Your task to perform on an android device: show emergency info Image 0: 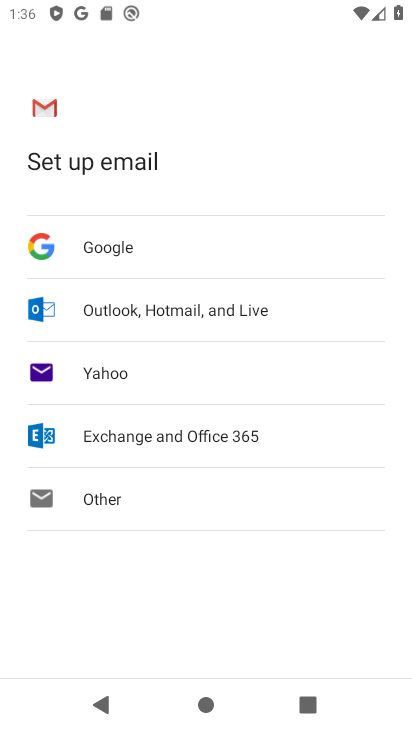
Step 0: press home button
Your task to perform on an android device: show emergency info Image 1: 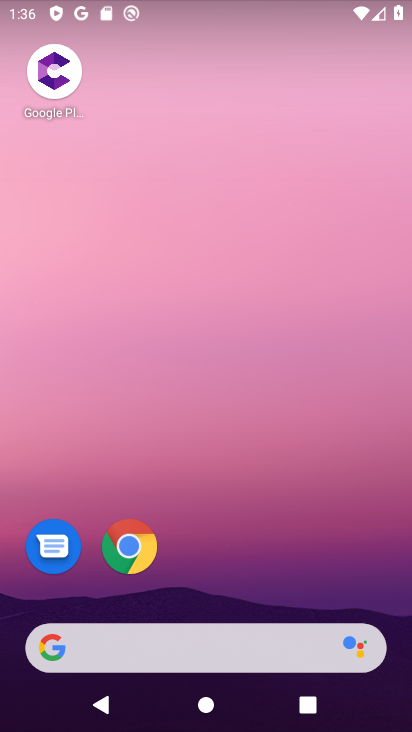
Step 1: drag from (221, 646) to (153, 2)
Your task to perform on an android device: show emergency info Image 2: 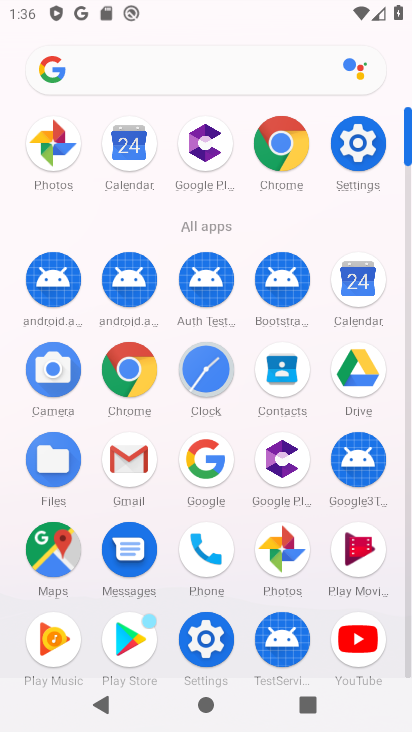
Step 2: click (356, 158)
Your task to perform on an android device: show emergency info Image 3: 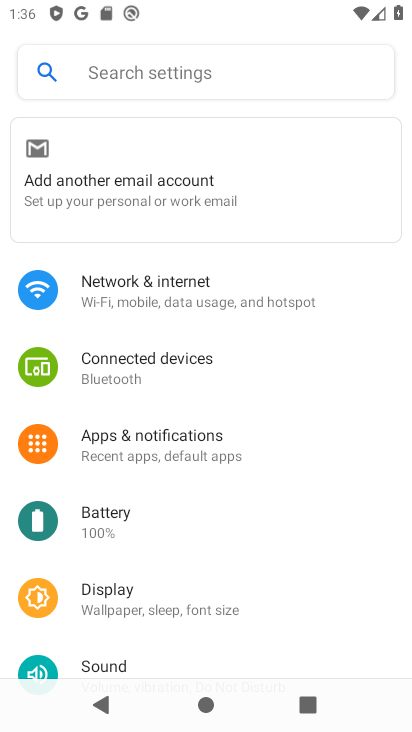
Step 3: drag from (156, 600) to (94, 1)
Your task to perform on an android device: show emergency info Image 4: 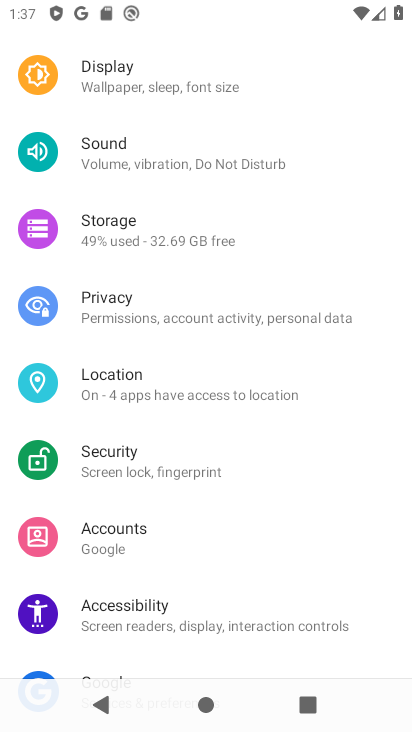
Step 4: drag from (173, 620) to (225, 16)
Your task to perform on an android device: show emergency info Image 5: 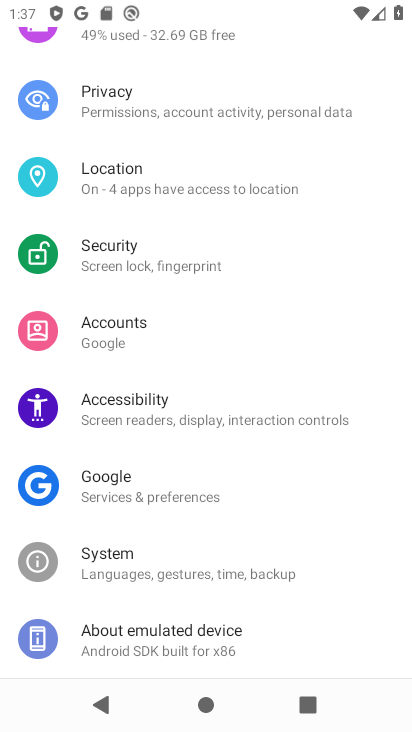
Step 5: click (131, 646)
Your task to perform on an android device: show emergency info Image 6: 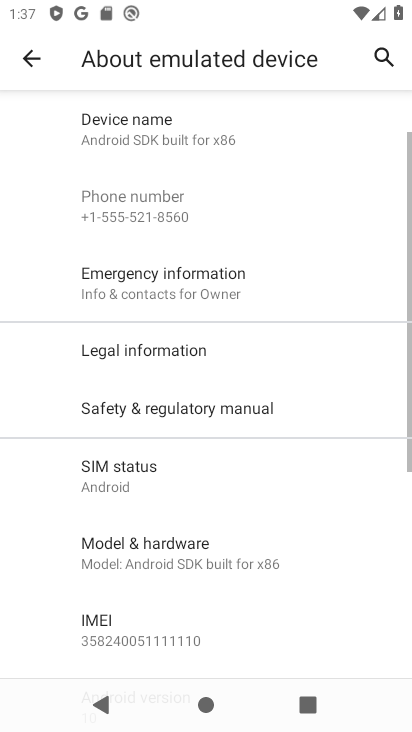
Step 6: click (151, 286)
Your task to perform on an android device: show emergency info Image 7: 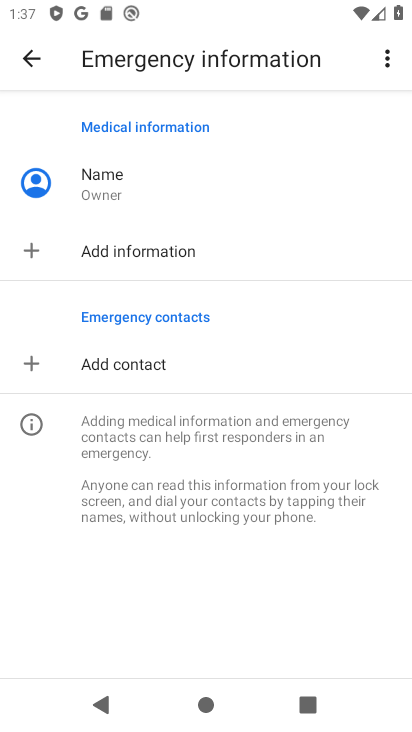
Step 7: task complete